Your task to perform on an android device: Turn on the flashlight Image 0: 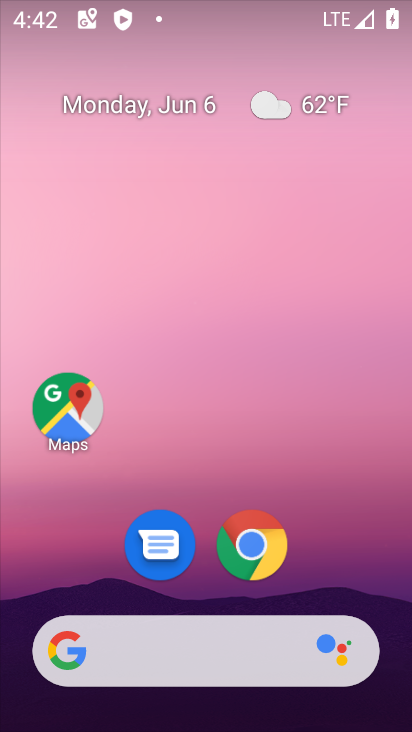
Step 0: drag from (223, 730) to (189, 44)
Your task to perform on an android device: Turn on the flashlight Image 1: 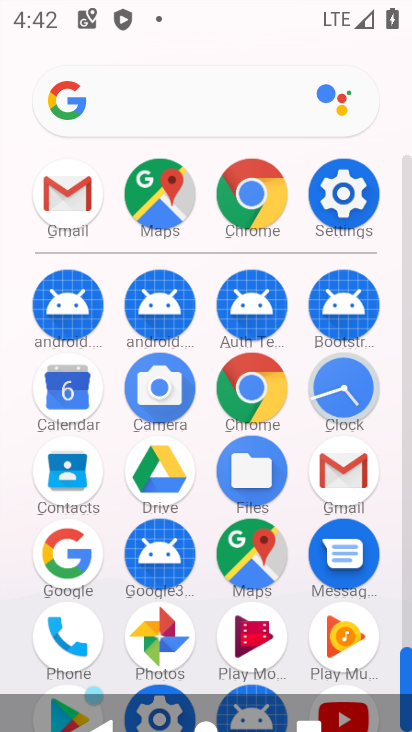
Step 1: click (342, 195)
Your task to perform on an android device: Turn on the flashlight Image 2: 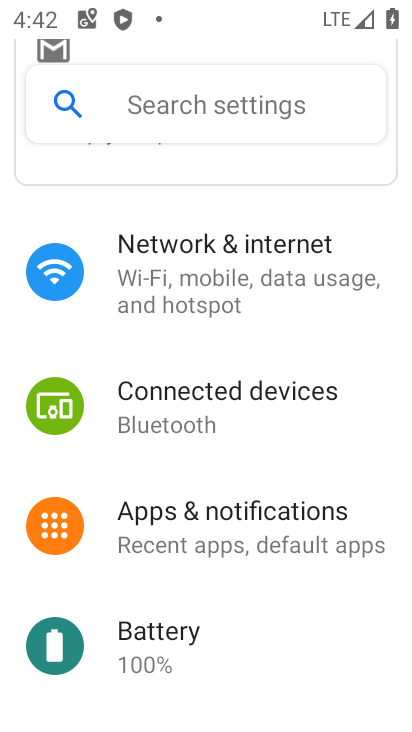
Step 2: task complete